Your task to perform on an android device: toggle airplane mode Image 0: 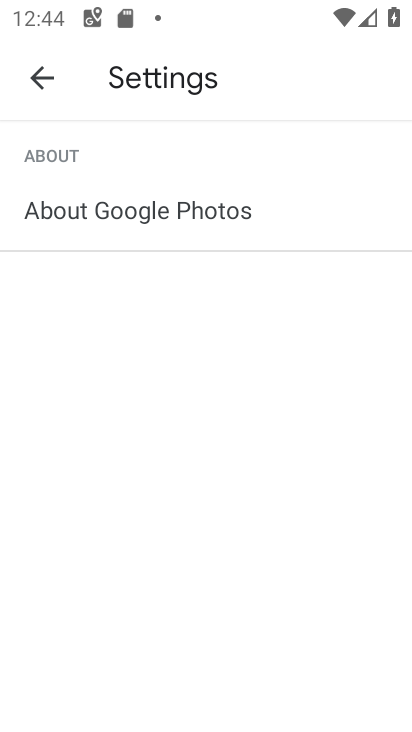
Step 0: press home button
Your task to perform on an android device: toggle airplane mode Image 1: 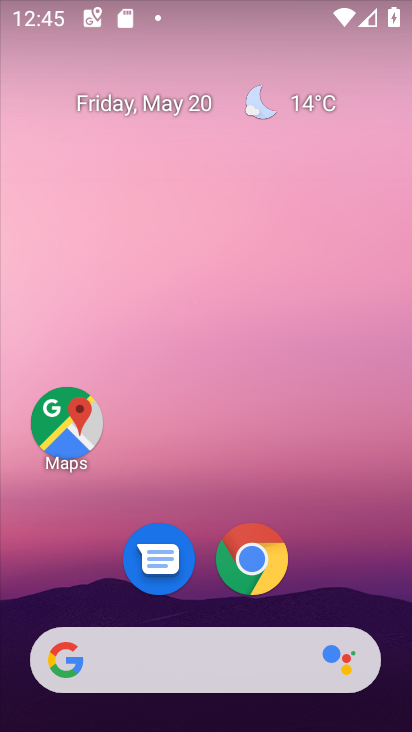
Step 1: drag from (349, 579) to (228, 24)
Your task to perform on an android device: toggle airplane mode Image 2: 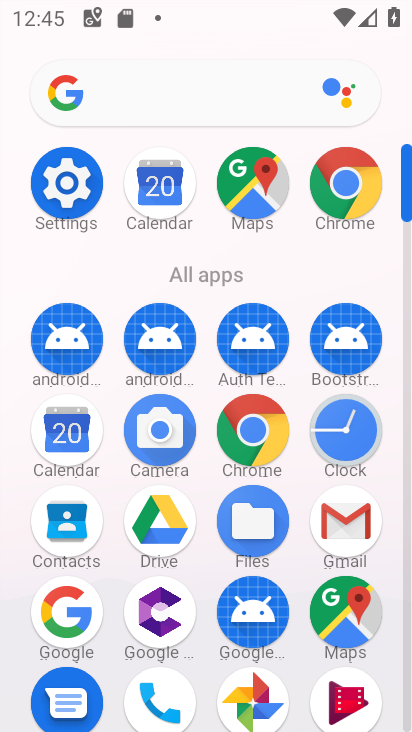
Step 2: click (56, 175)
Your task to perform on an android device: toggle airplane mode Image 3: 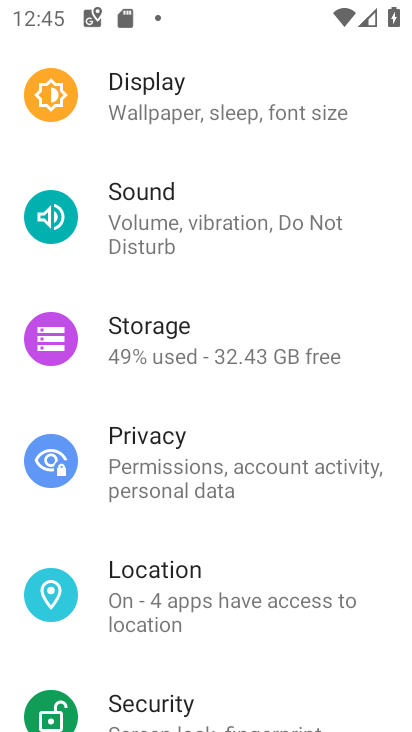
Step 3: drag from (214, 127) to (231, 689)
Your task to perform on an android device: toggle airplane mode Image 4: 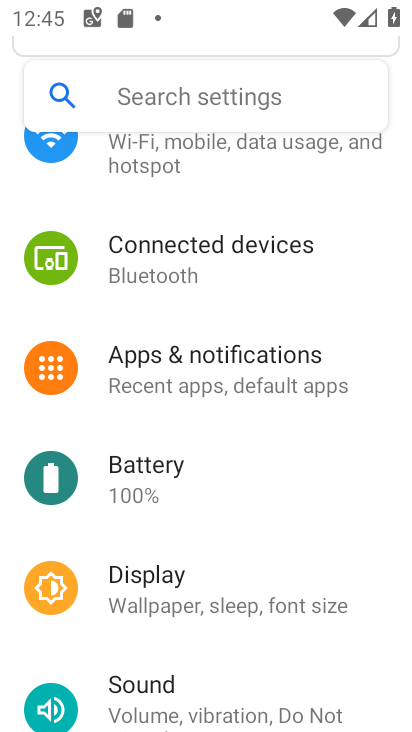
Step 4: drag from (249, 230) to (298, 660)
Your task to perform on an android device: toggle airplane mode Image 5: 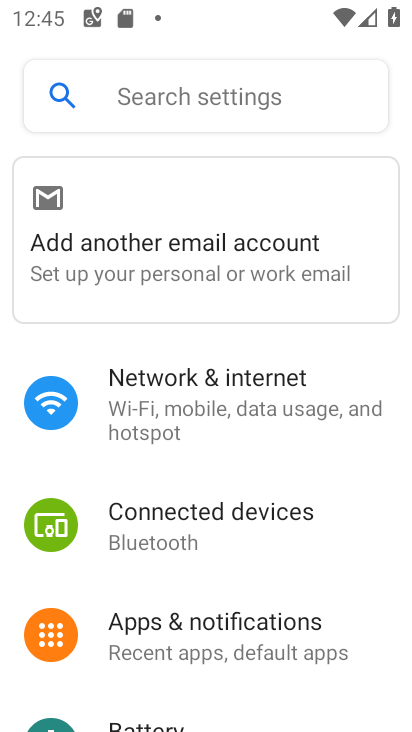
Step 5: click (249, 383)
Your task to perform on an android device: toggle airplane mode Image 6: 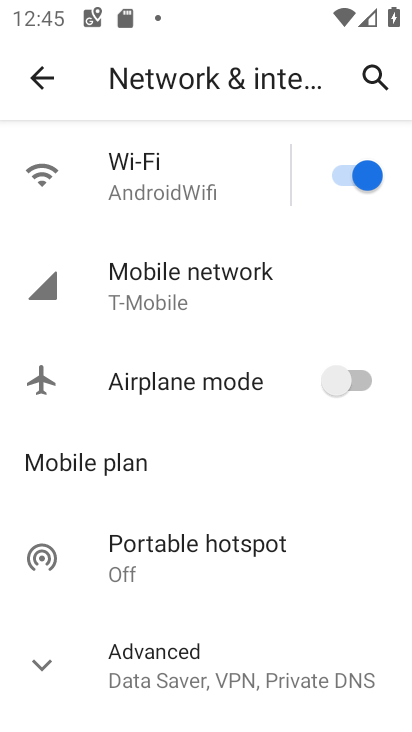
Step 6: click (333, 388)
Your task to perform on an android device: toggle airplane mode Image 7: 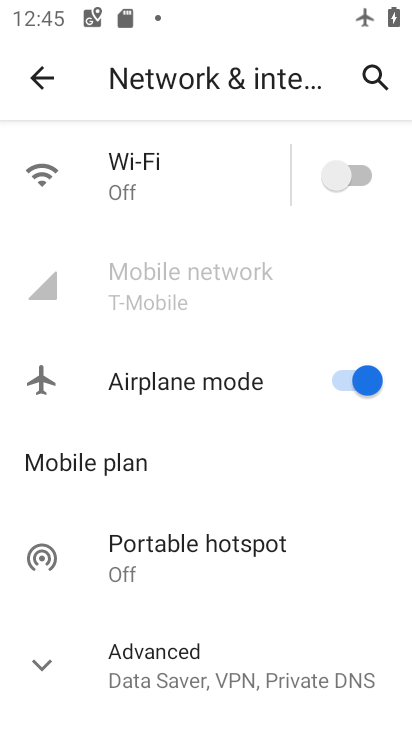
Step 7: task complete